Your task to perform on an android device: allow notifications from all sites in the chrome app Image 0: 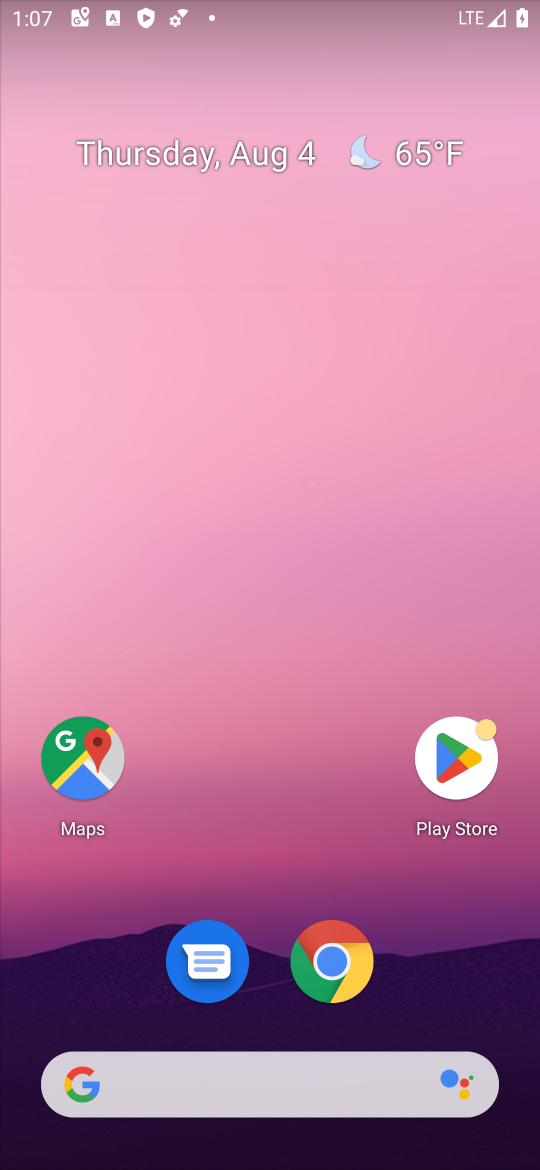
Step 0: click (354, 953)
Your task to perform on an android device: allow notifications from all sites in the chrome app Image 1: 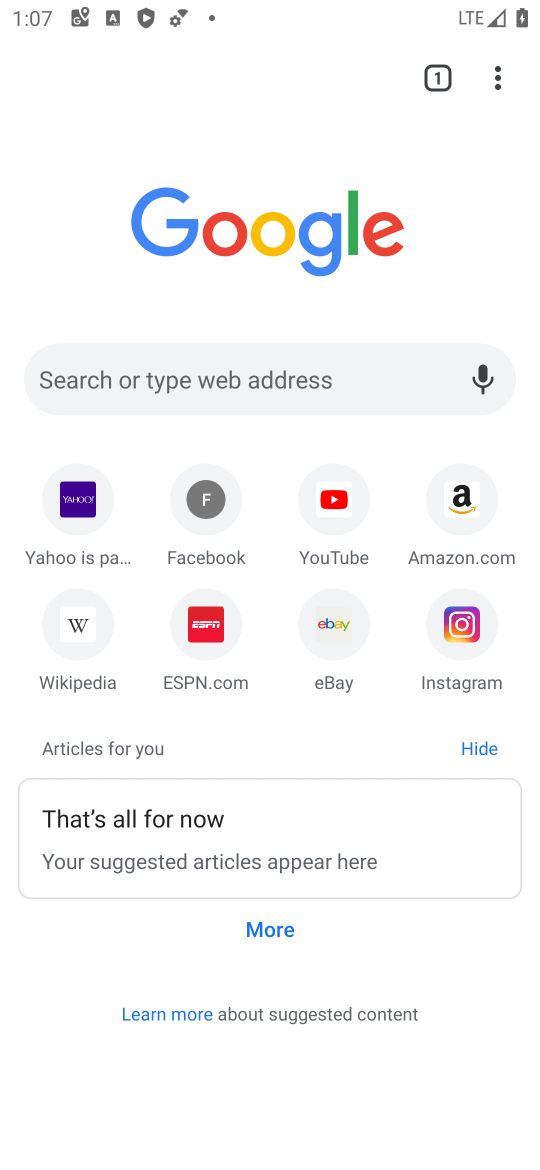
Step 1: press home button
Your task to perform on an android device: allow notifications from all sites in the chrome app Image 2: 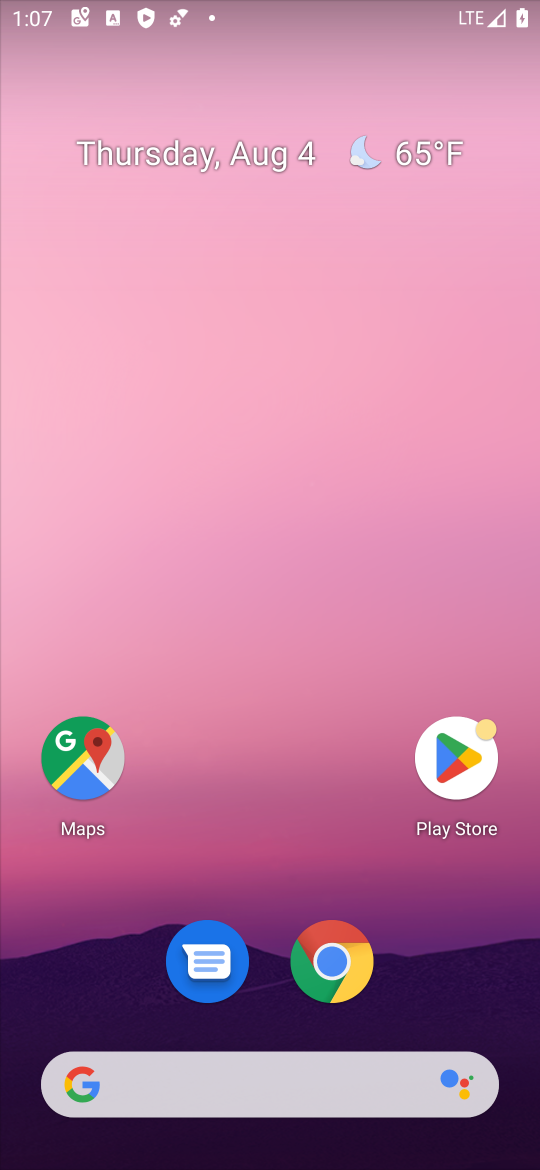
Step 2: click (347, 951)
Your task to perform on an android device: allow notifications from all sites in the chrome app Image 3: 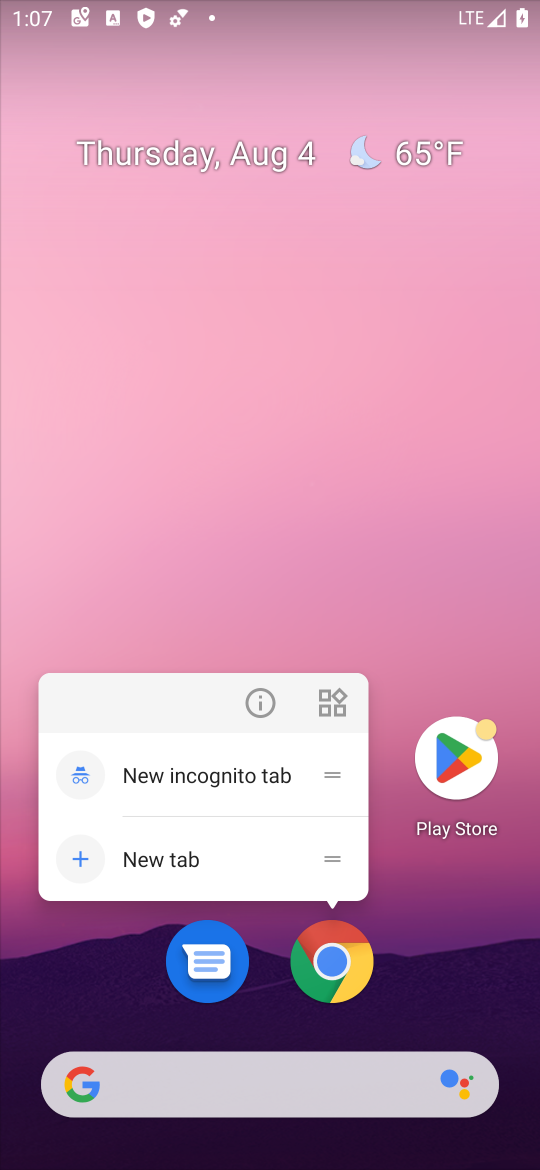
Step 3: click (347, 951)
Your task to perform on an android device: allow notifications from all sites in the chrome app Image 4: 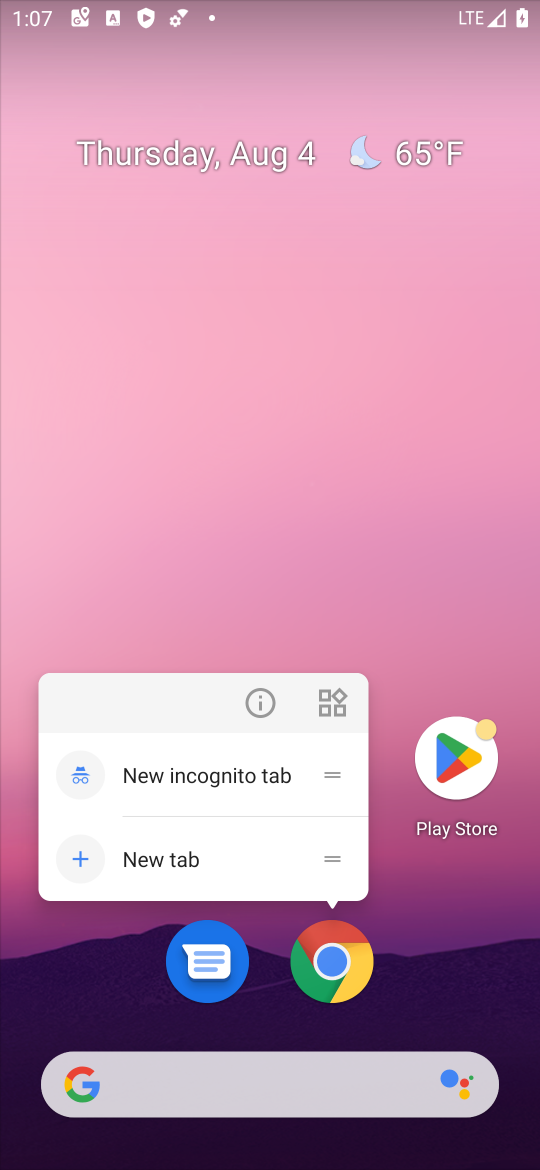
Step 4: click (332, 964)
Your task to perform on an android device: allow notifications from all sites in the chrome app Image 5: 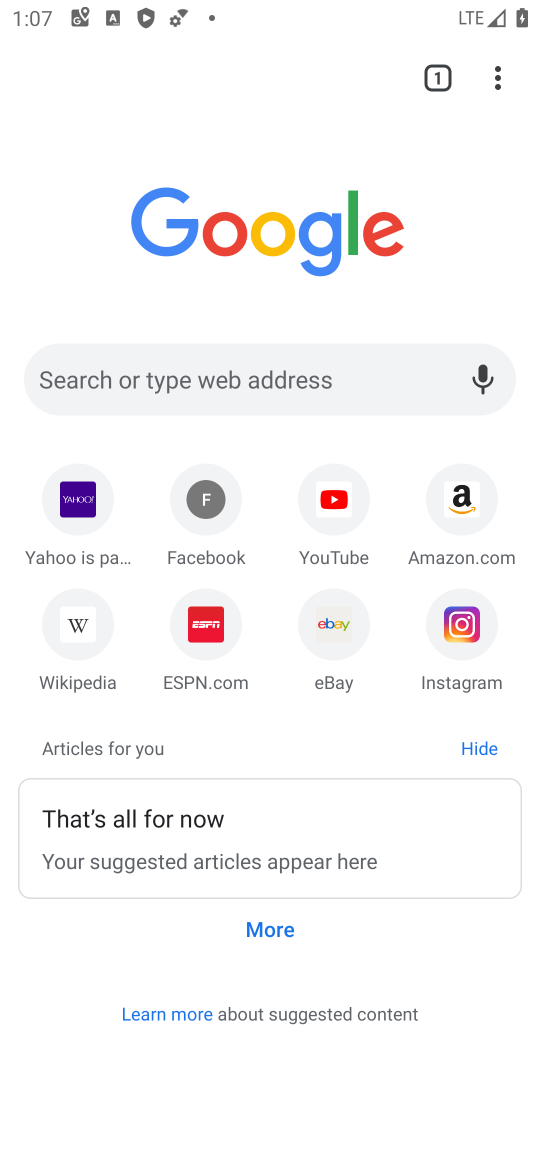
Step 5: click (493, 81)
Your task to perform on an android device: allow notifications from all sites in the chrome app Image 6: 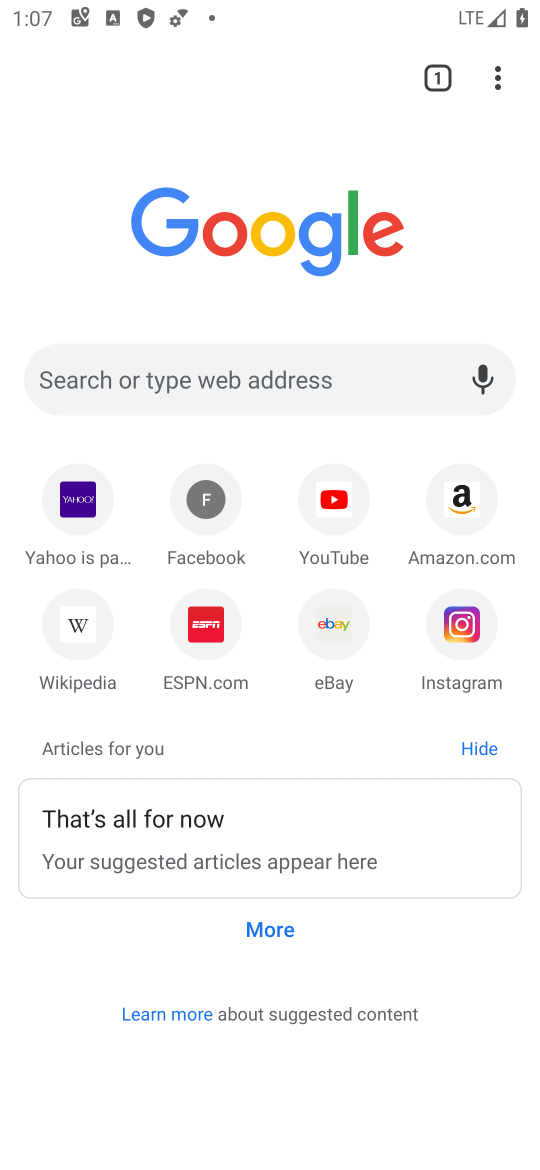
Step 6: click (493, 81)
Your task to perform on an android device: allow notifications from all sites in the chrome app Image 7: 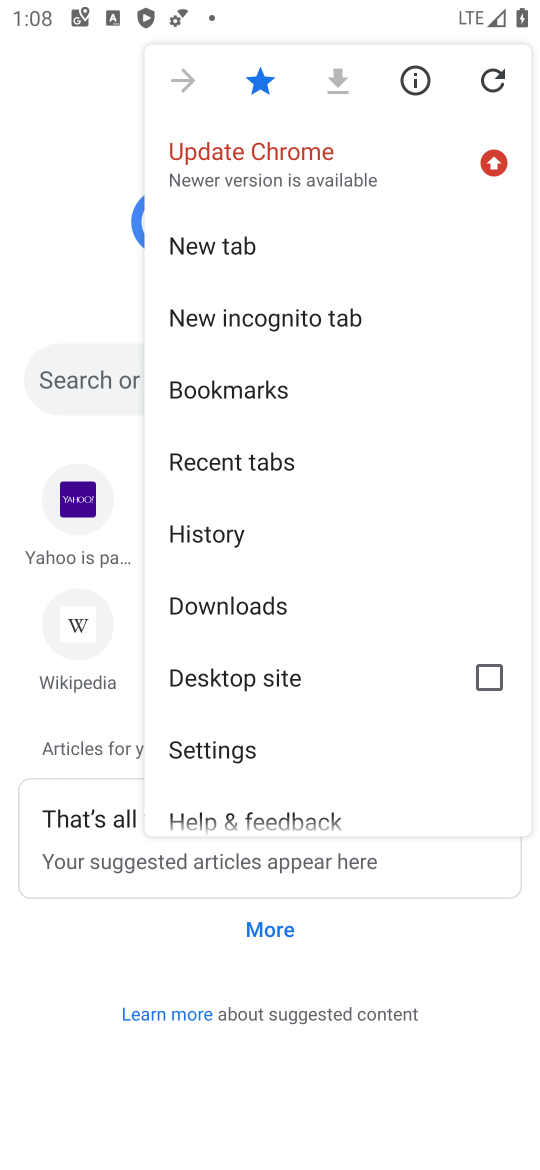
Step 7: click (224, 748)
Your task to perform on an android device: allow notifications from all sites in the chrome app Image 8: 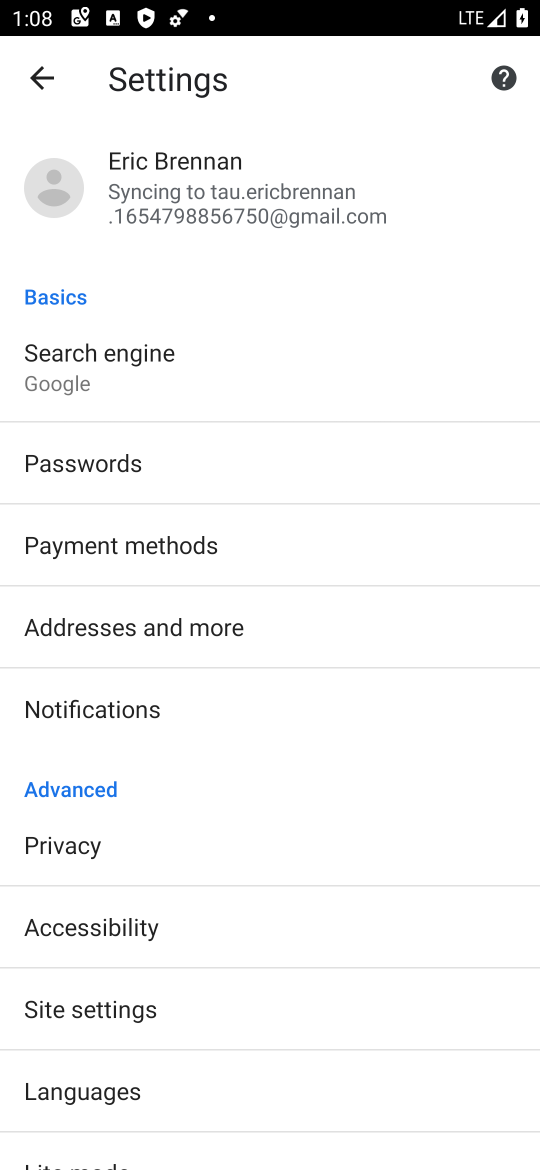
Step 8: click (212, 697)
Your task to perform on an android device: allow notifications from all sites in the chrome app Image 9: 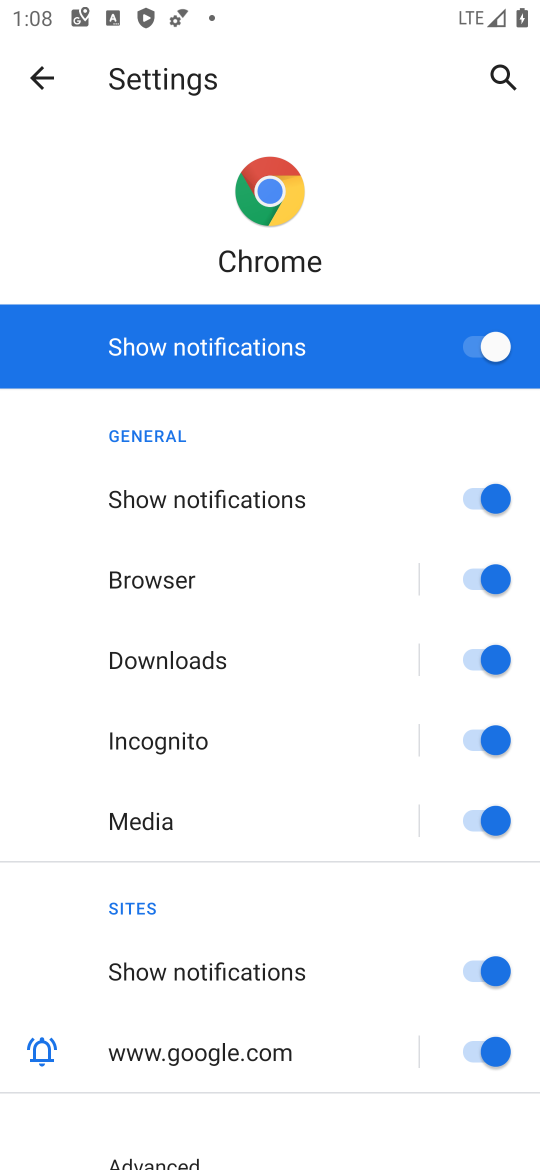
Step 9: task complete